Your task to perform on an android device: turn on priority inbox in the gmail app Image 0: 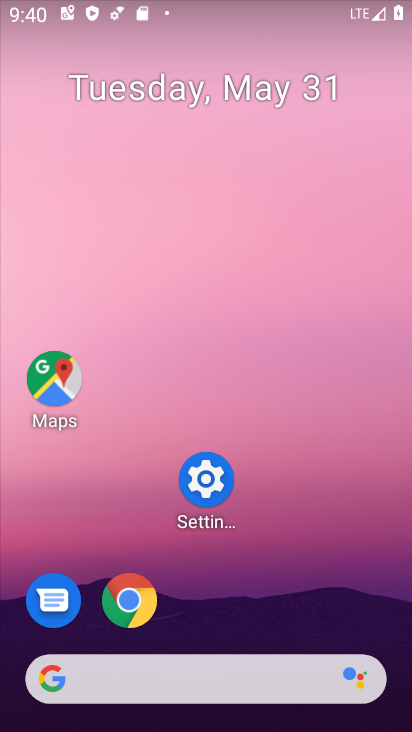
Step 0: press home button
Your task to perform on an android device: turn on priority inbox in the gmail app Image 1: 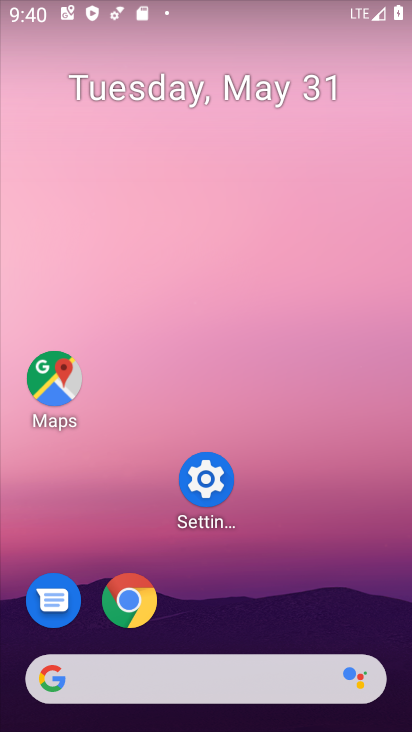
Step 1: drag from (199, 715) to (213, 351)
Your task to perform on an android device: turn on priority inbox in the gmail app Image 2: 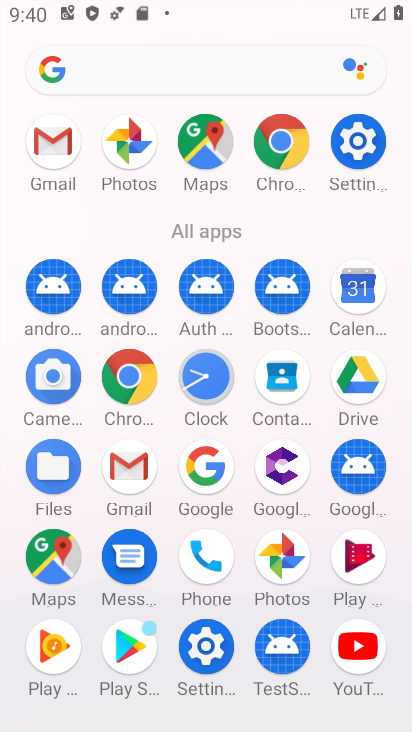
Step 2: click (46, 152)
Your task to perform on an android device: turn on priority inbox in the gmail app Image 3: 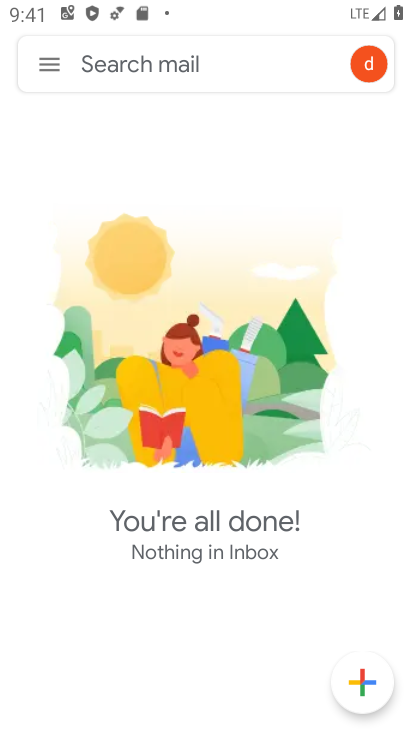
Step 3: click (46, 67)
Your task to perform on an android device: turn on priority inbox in the gmail app Image 4: 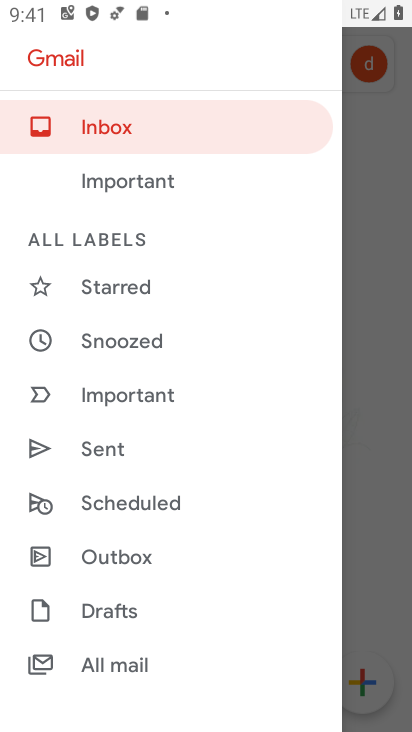
Step 4: drag from (124, 554) to (225, 239)
Your task to perform on an android device: turn on priority inbox in the gmail app Image 5: 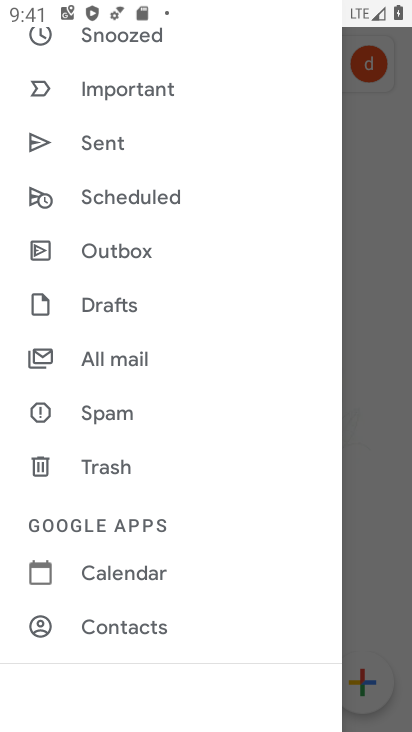
Step 5: drag from (183, 633) to (207, 457)
Your task to perform on an android device: turn on priority inbox in the gmail app Image 6: 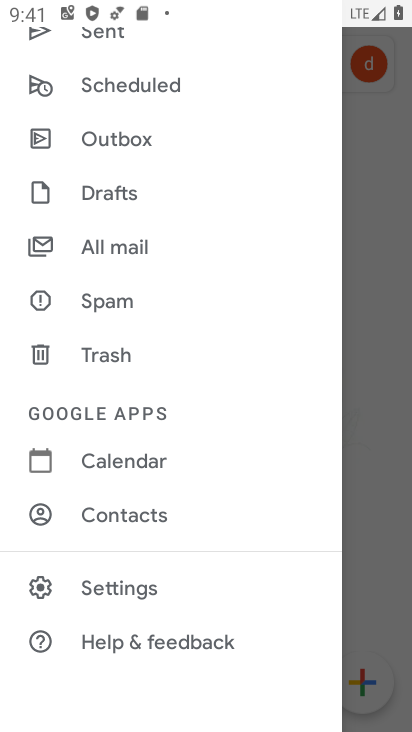
Step 6: click (124, 583)
Your task to perform on an android device: turn on priority inbox in the gmail app Image 7: 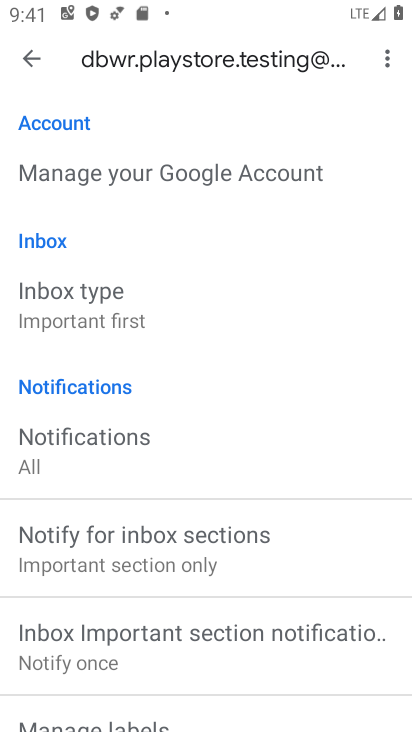
Step 7: click (86, 295)
Your task to perform on an android device: turn on priority inbox in the gmail app Image 8: 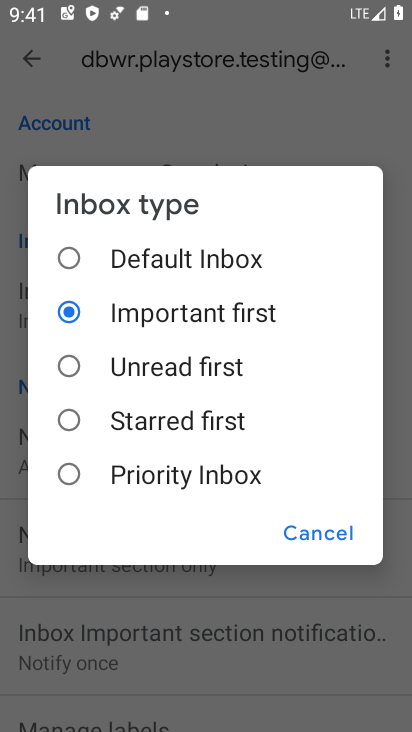
Step 8: click (160, 464)
Your task to perform on an android device: turn on priority inbox in the gmail app Image 9: 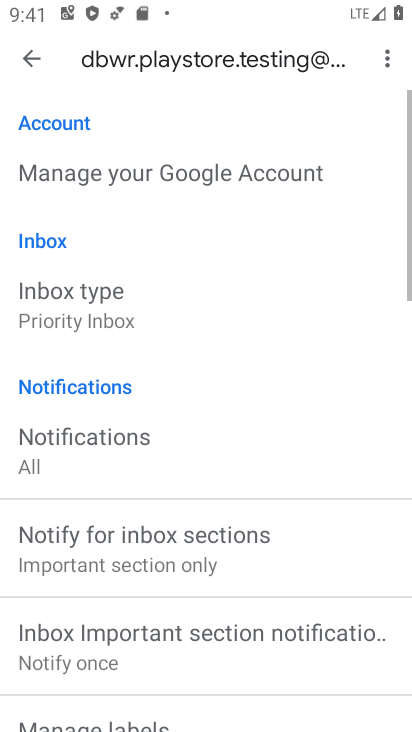
Step 9: click (385, 342)
Your task to perform on an android device: turn on priority inbox in the gmail app Image 10: 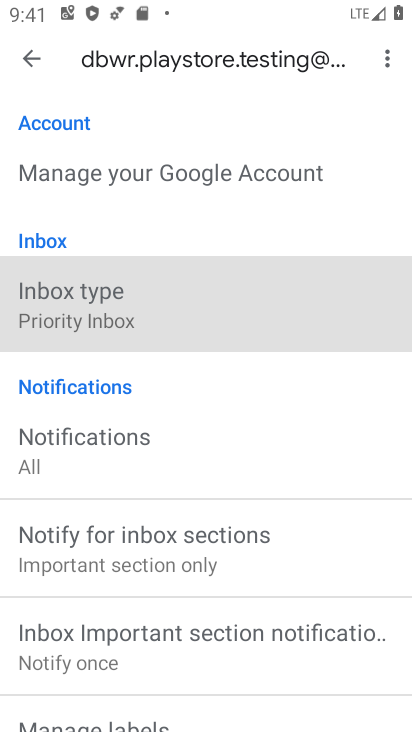
Step 10: task complete